Your task to perform on an android device: Go to internet settings Image 0: 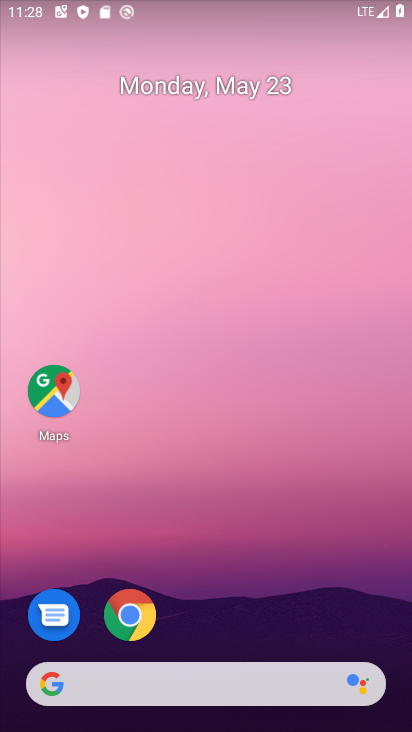
Step 0: drag from (203, 8) to (166, 725)
Your task to perform on an android device: Go to internet settings Image 1: 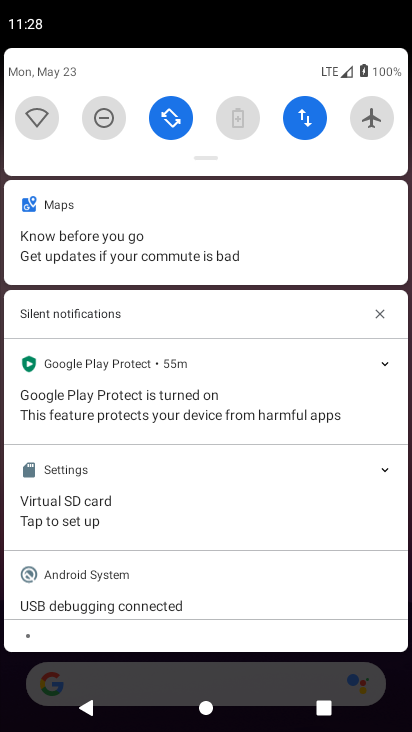
Step 1: click (303, 137)
Your task to perform on an android device: Go to internet settings Image 2: 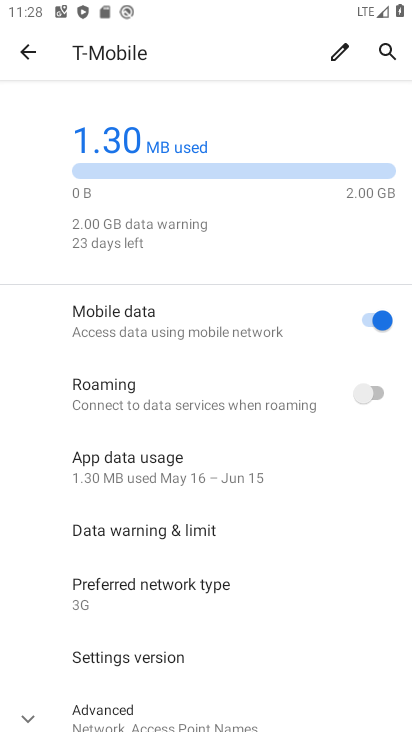
Step 2: task complete